Your task to perform on an android device: star an email in the gmail app Image 0: 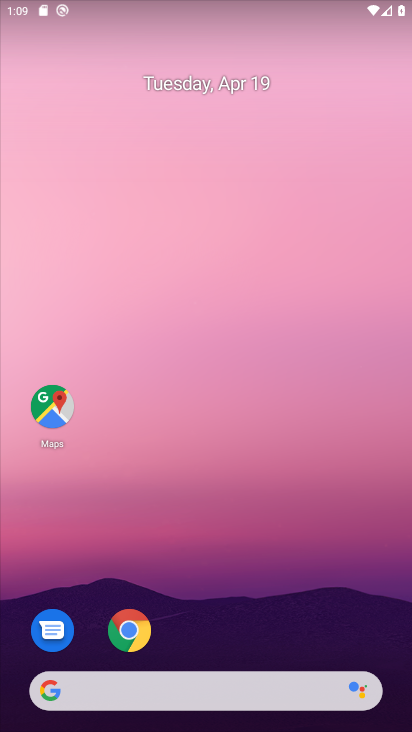
Step 0: drag from (269, 570) to (362, 12)
Your task to perform on an android device: star an email in the gmail app Image 1: 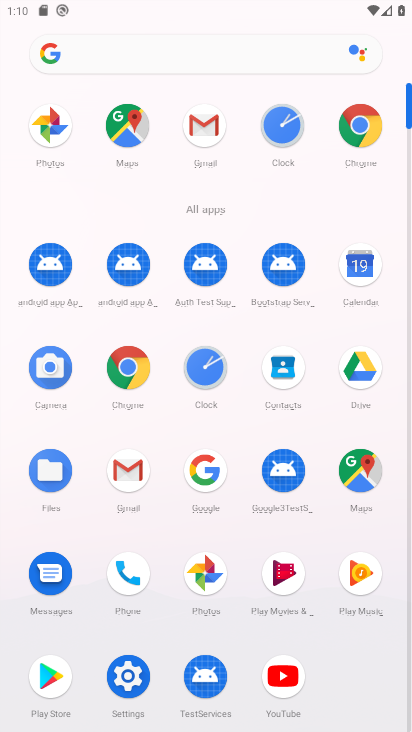
Step 1: click (138, 472)
Your task to perform on an android device: star an email in the gmail app Image 2: 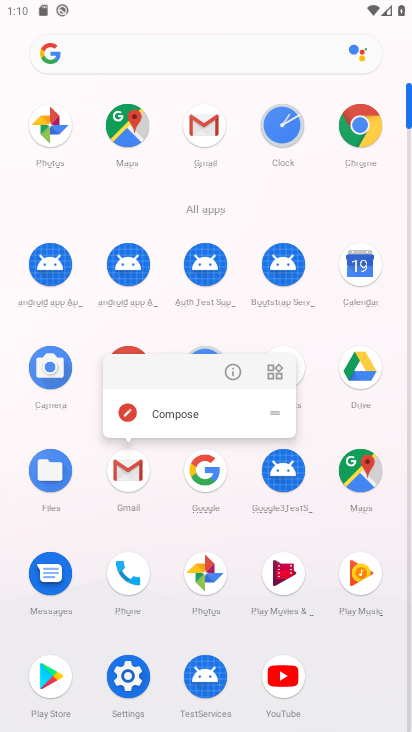
Step 2: click (138, 472)
Your task to perform on an android device: star an email in the gmail app Image 3: 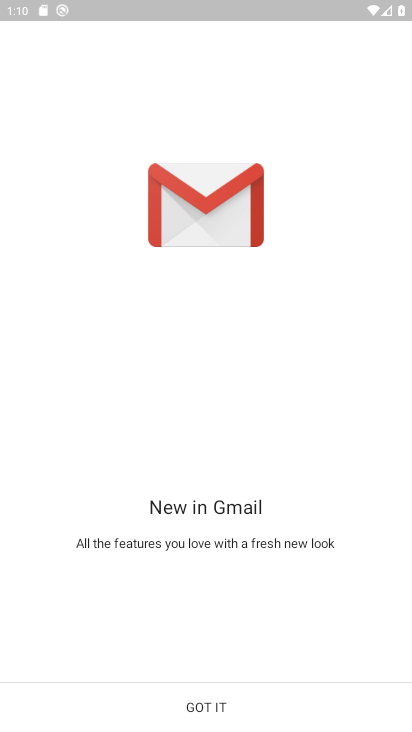
Step 3: click (181, 717)
Your task to perform on an android device: star an email in the gmail app Image 4: 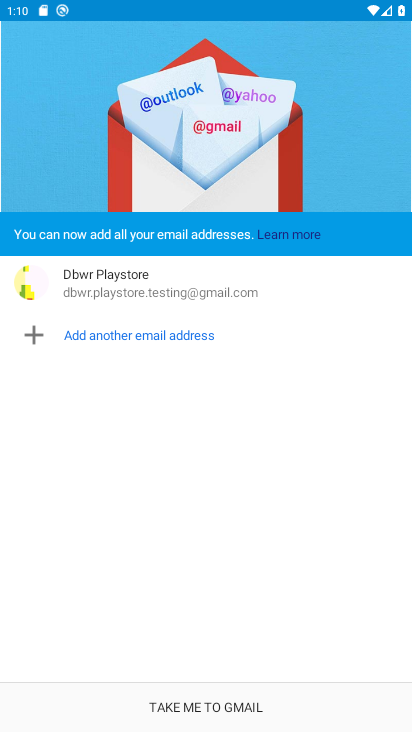
Step 4: click (184, 716)
Your task to perform on an android device: star an email in the gmail app Image 5: 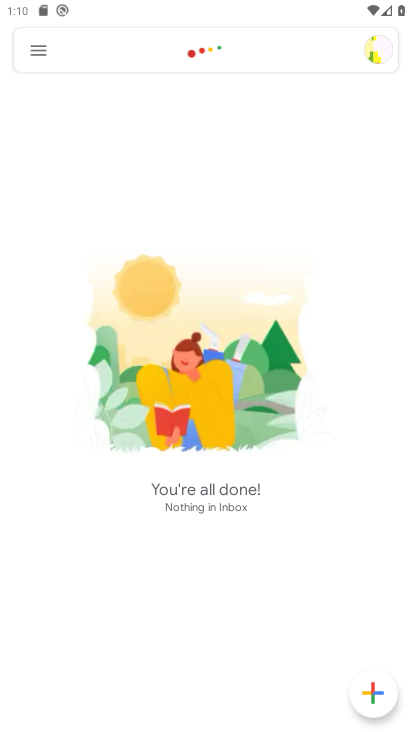
Step 5: click (35, 44)
Your task to perform on an android device: star an email in the gmail app Image 6: 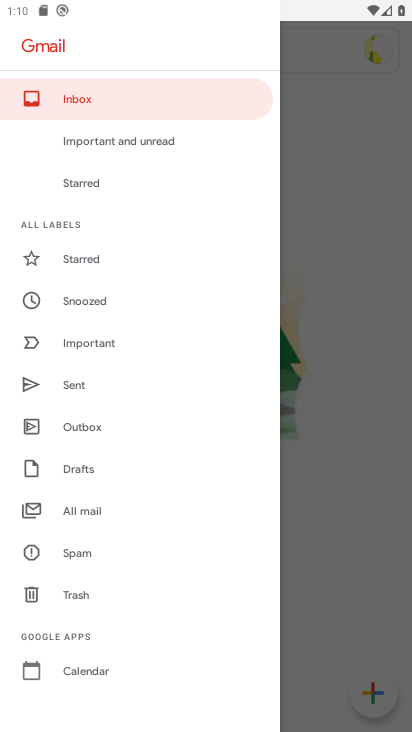
Step 6: click (120, 512)
Your task to perform on an android device: star an email in the gmail app Image 7: 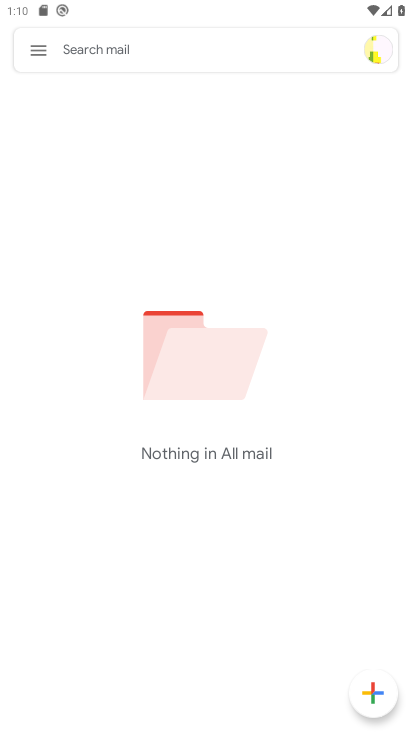
Step 7: task complete